Your task to perform on an android device: Show me recent news Image 0: 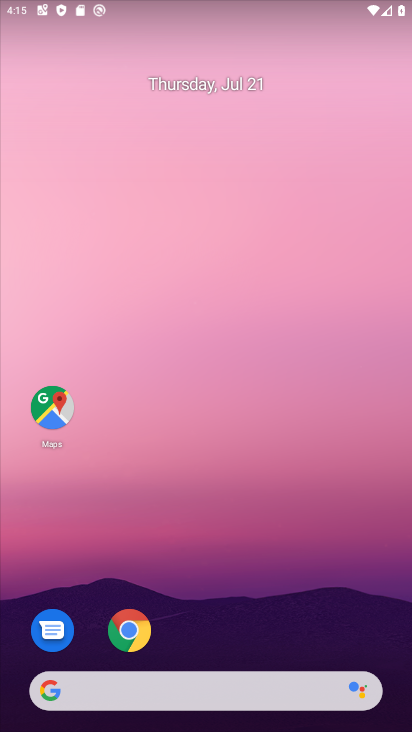
Step 0: click (40, 420)
Your task to perform on an android device: Show me recent news Image 1: 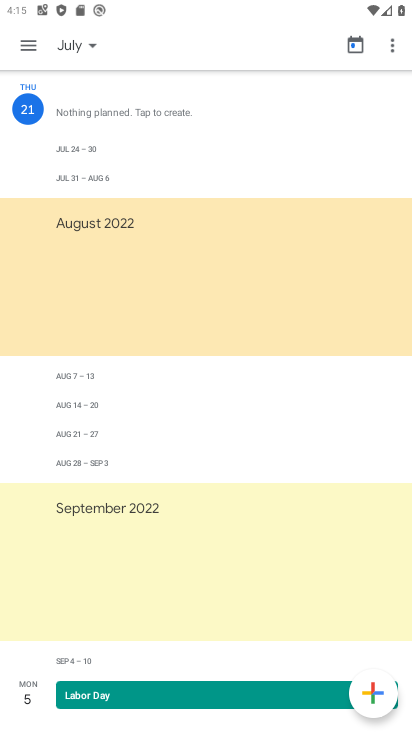
Step 1: press home button
Your task to perform on an android device: Show me recent news Image 2: 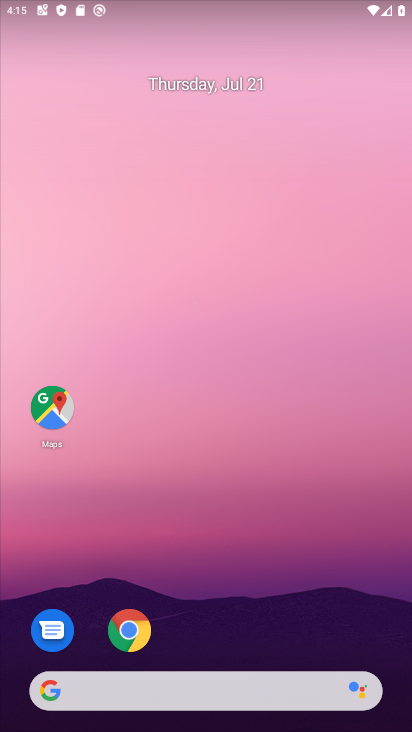
Step 2: click (100, 690)
Your task to perform on an android device: Show me recent news Image 3: 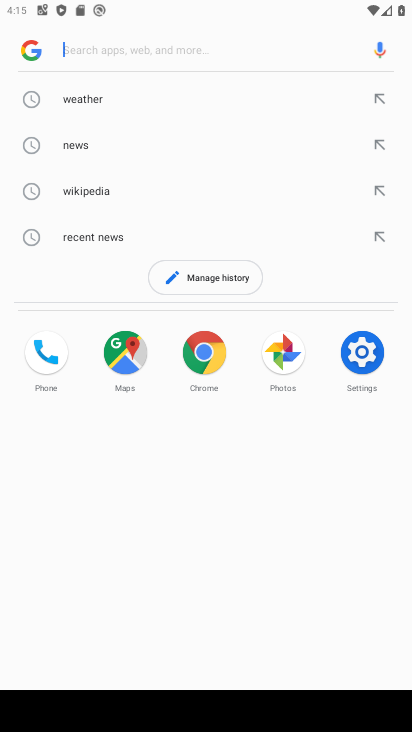
Step 3: type "Show me recent news"
Your task to perform on an android device: Show me recent news Image 4: 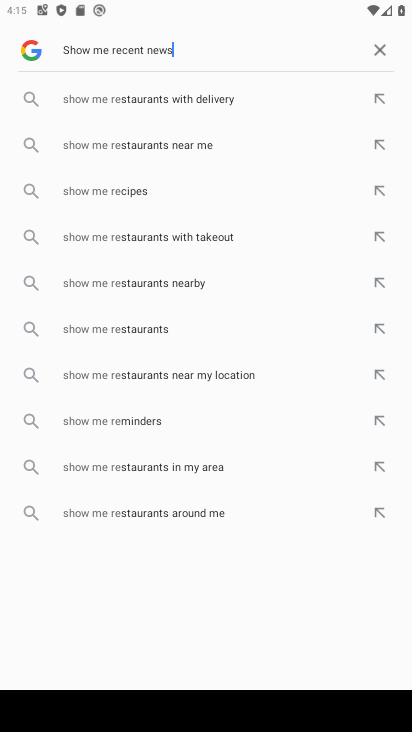
Step 4: type ""
Your task to perform on an android device: Show me recent news Image 5: 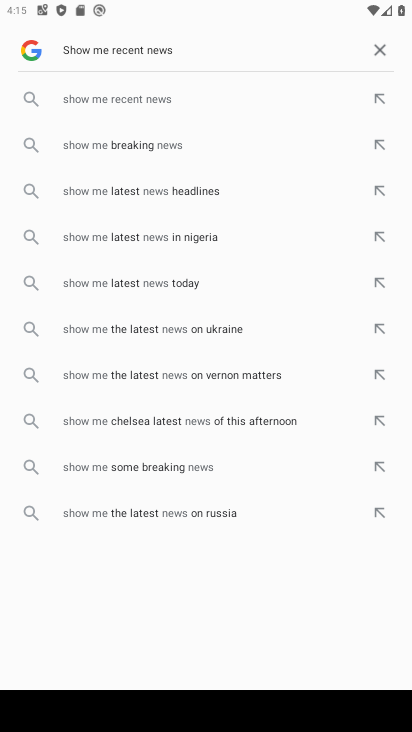
Step 5: click (157, 89)
Your task to perform on an android device: Show me recent news Image 6: 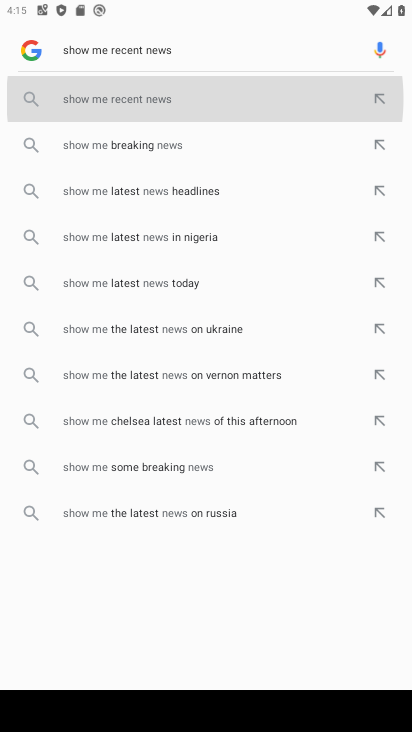
Step 6: click (156, 97)
Your task to perform on an android device: Show me recent news Image 7: 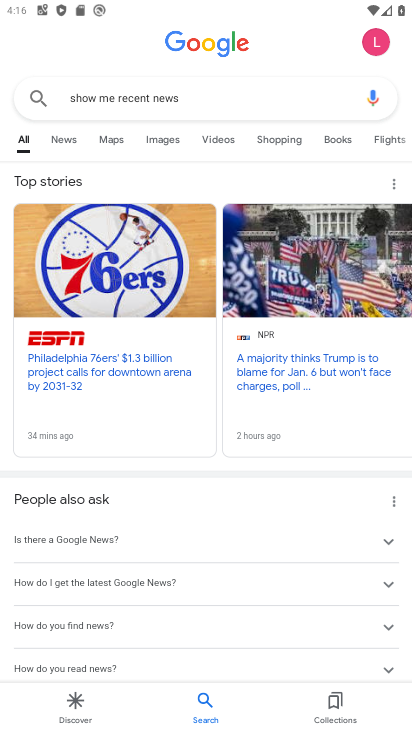
Step 7: task complete